Your task to perform on an android device: turn on bluetooth scan Image 0: 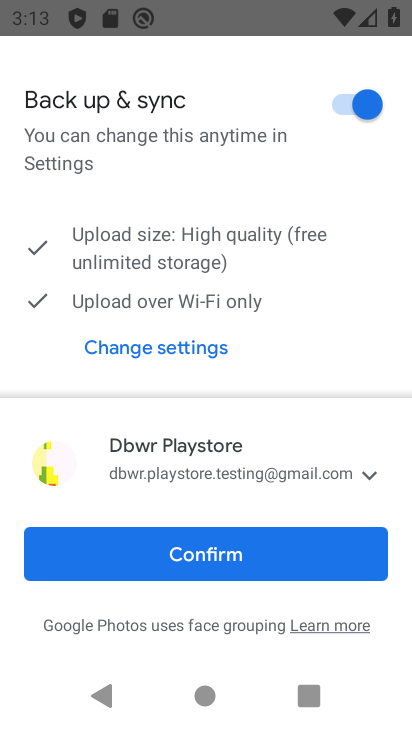
Step 0: press home button
Your task to perform on an android device: turn on bluetooth scan Image 1: 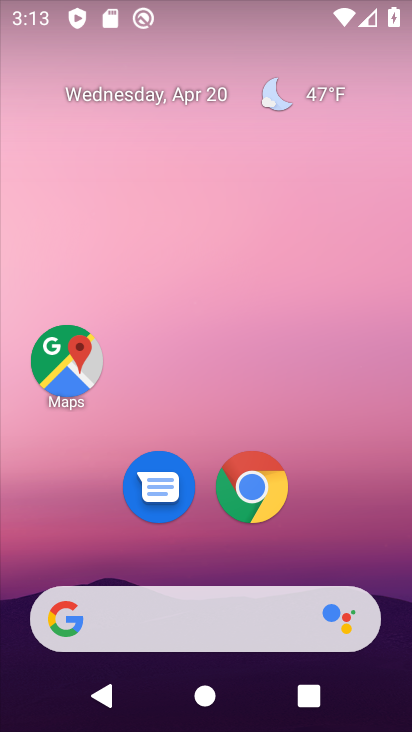
Step 1: drag from (398, 529) to (388, 132)
Your task to perform on an android device: turn on bluetooth scan Image 2: 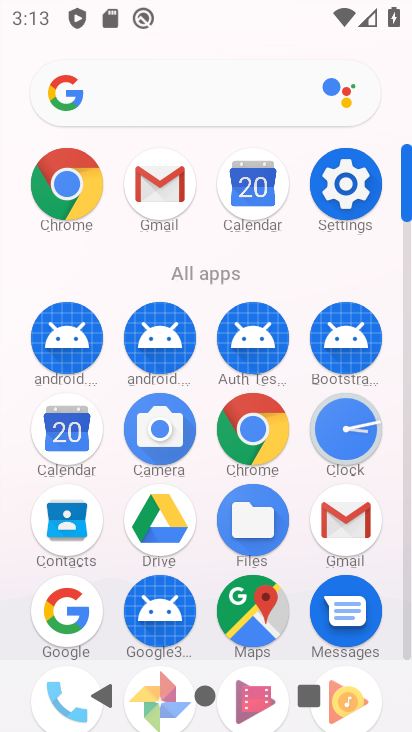
Step 2: click (357, 182)
Your task to perform on an android device: turn on bluetooth scan Image 3: 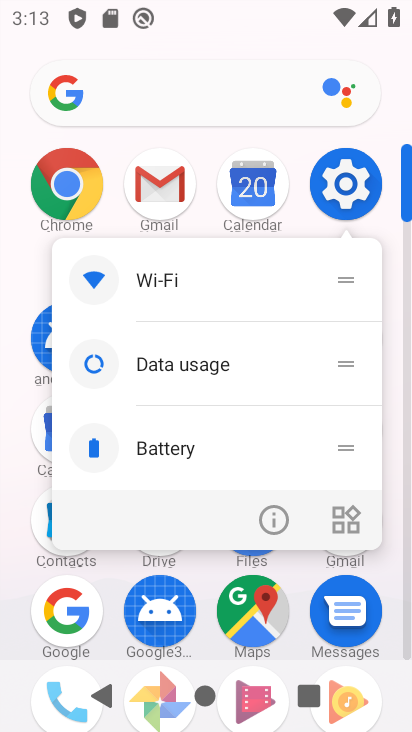
Step 3: click (358, 175)
Your task to perform on an android device: turn on bluetooth scan Image 4: 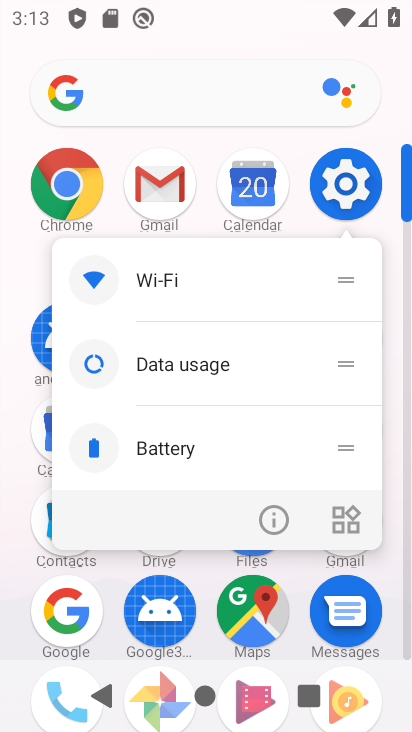
Step 4: click (353, 190)
Your task to perform on an android device: turn on bluetooth scan Image 5: 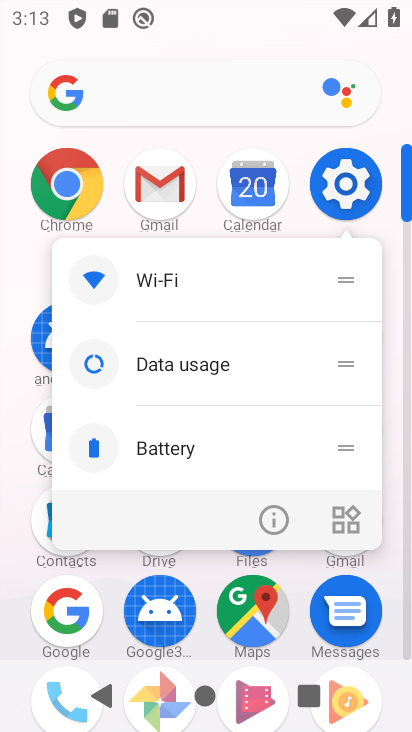
Step 5: click (353, 193)
Your task to perform on an android device: turn on bluetooth scan Image 6: 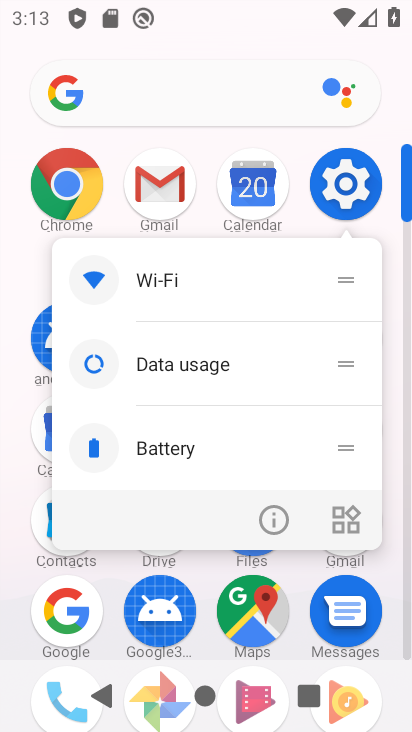
Step 6: click (369, 163)
Your task to perform on an android device: turn on bluetooth scan Image 7: 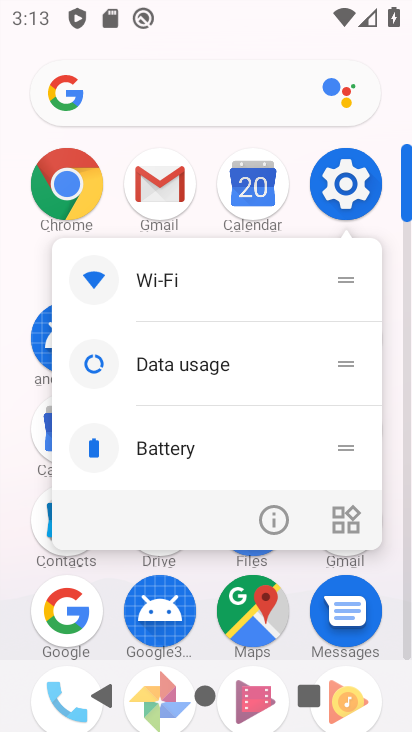
Step 7: click (316, 182)
Your task to perform on an android device: turn on bluetooth scan Image 8: 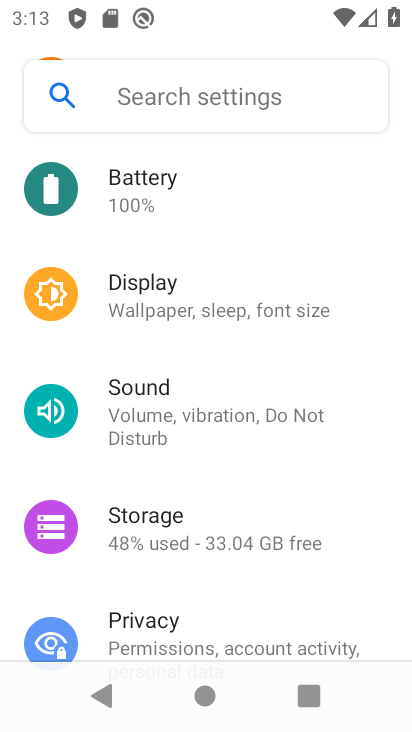
Step 8: drag from (308, 514) to (307, 254)
Your task to perform on an android device: turn on bluetooth scan Image 9: 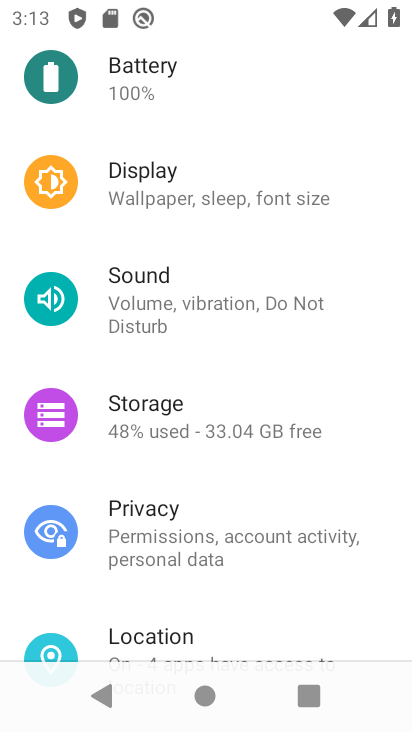
Step 9: click (256, 633)
Your task to perform on an android device: turn on bluetooth scan Image 10: 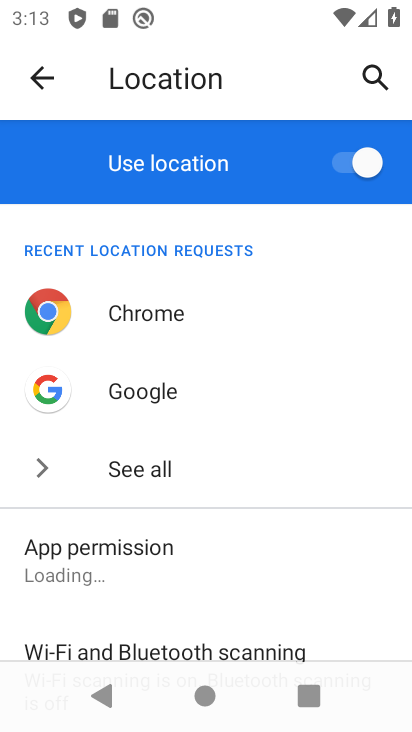
Step 10: drag from (254, 586) to (282, 289)
Your task to perform on an android device: turn on bluetooth scan Image 11: 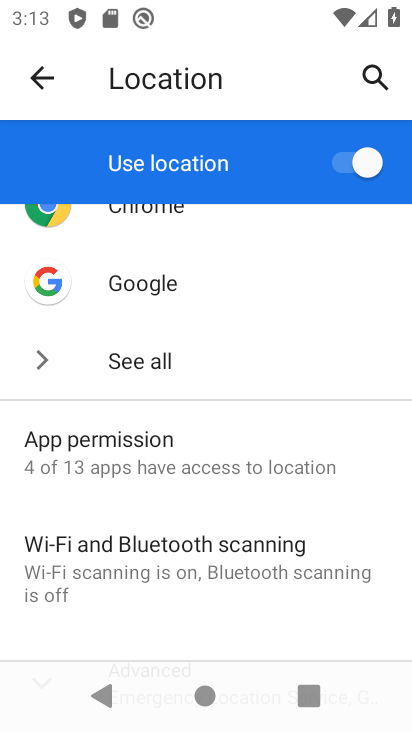
Step 11: click (247, 560)
Your task to perform on an android device: turn on bluetooth scan Image 12: 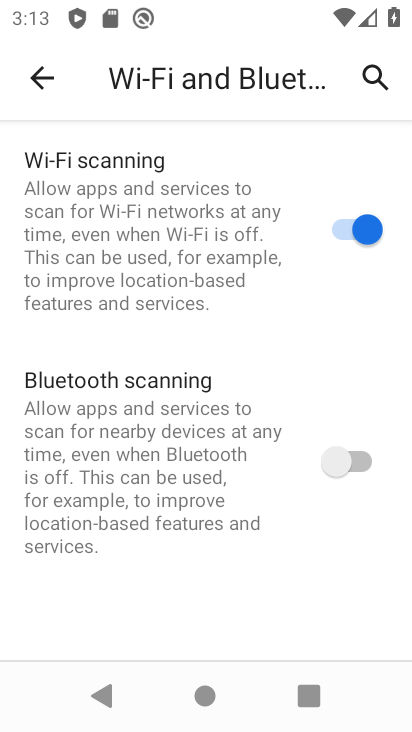
Step 12: click (347, 468)
Your task to perform on an android device: turn on bluetooth scan Image 13: 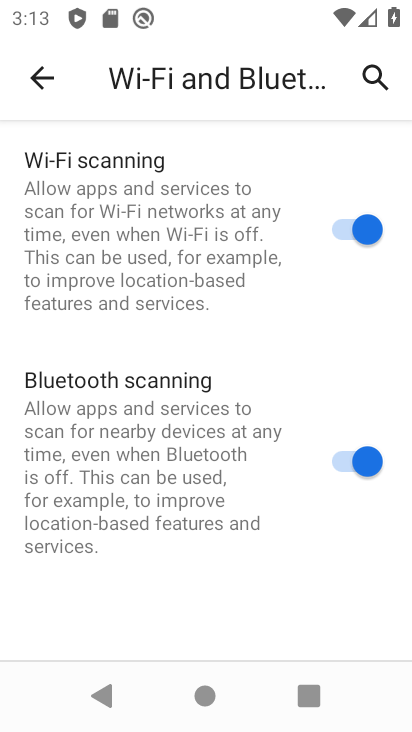
Step 13: task complete